Your task to perform on an android device: toggle airplane mode Image 0: 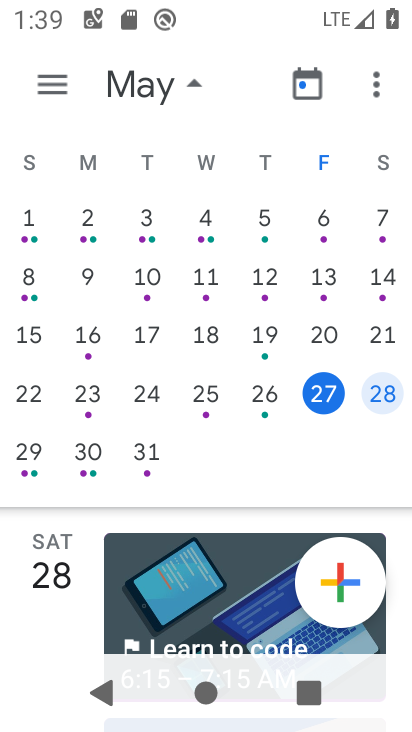
Step 0: press home button
Your task to perform on an android device: toggle airplane mode Image 1: 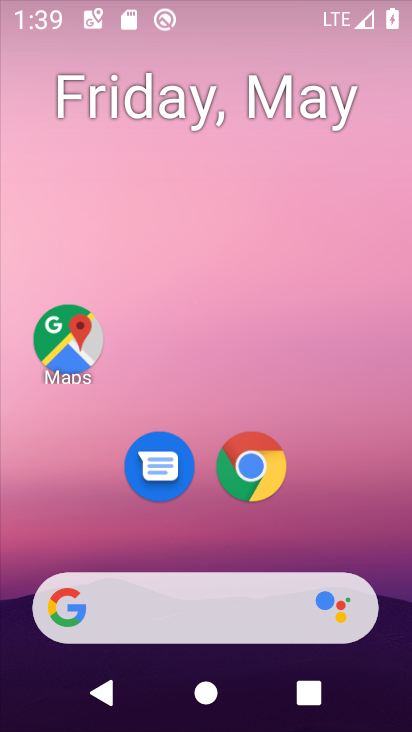
Step 1: drag from (361, 477) to (410, 0)
Your task to perform on an android device: toggle airplane mode Image 2: 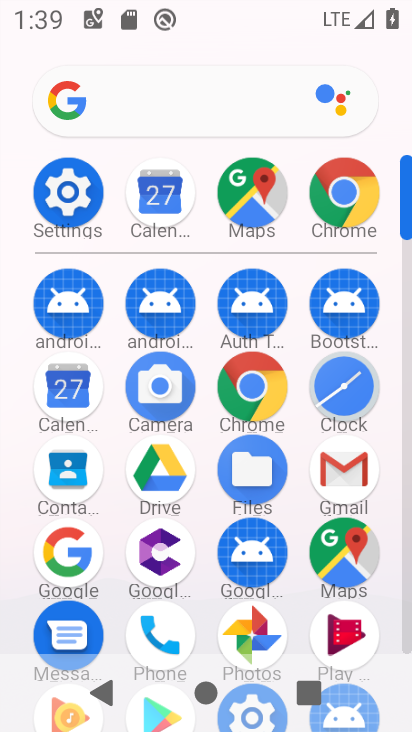
Step 2: click (65, 194)
Your task to perform on an android device: toggle airplane mode Image 3: 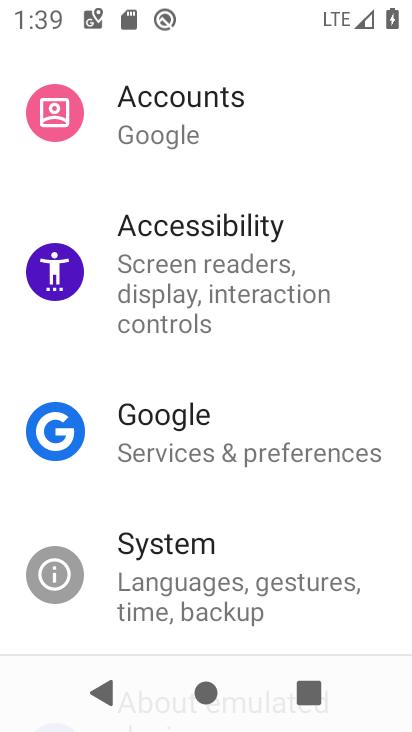
Step 3: drag from (197, 197) to (213, 693)
Your task to perform on an android device: toggle airplane mode Image 4: 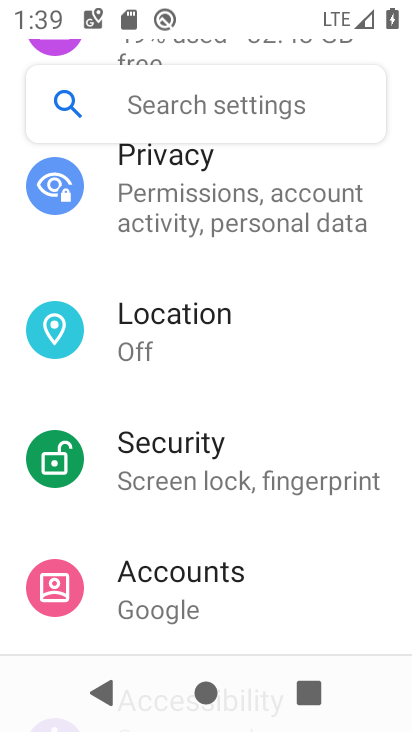
Step 4: drag from (250, 171) to (285, 627)
Your task to perform on an android device: toggle airplane mode Image 5: 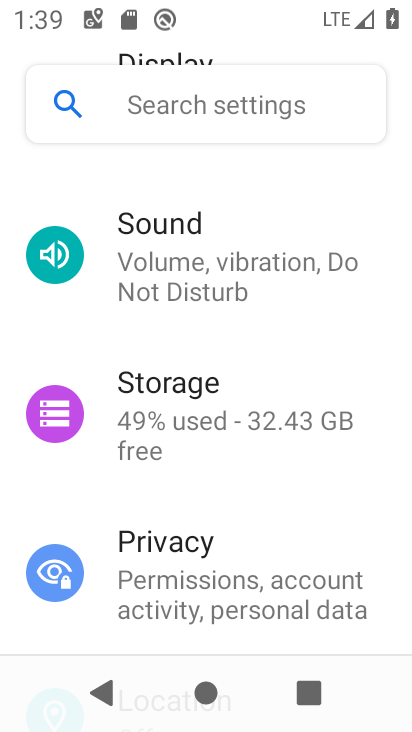
Step 5: drag from (294, 187) to (304, 706)
Your task to perform on an android device: toggle airplane mode Image 6: 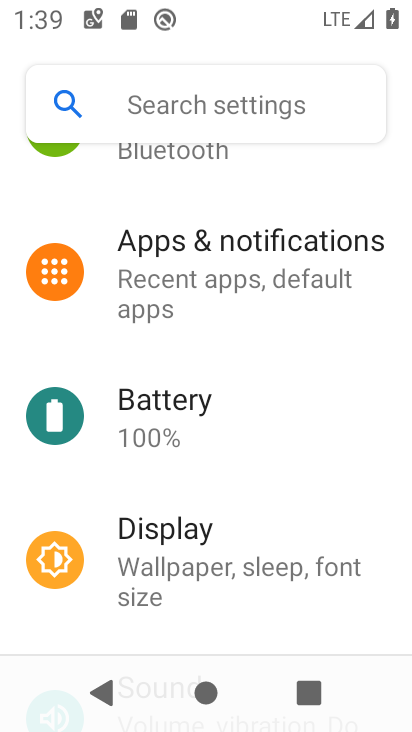
Step 6: drag from (279, 228) to (291, 647)
Your task to perform on an android device: toggle airplane mode Image 7: 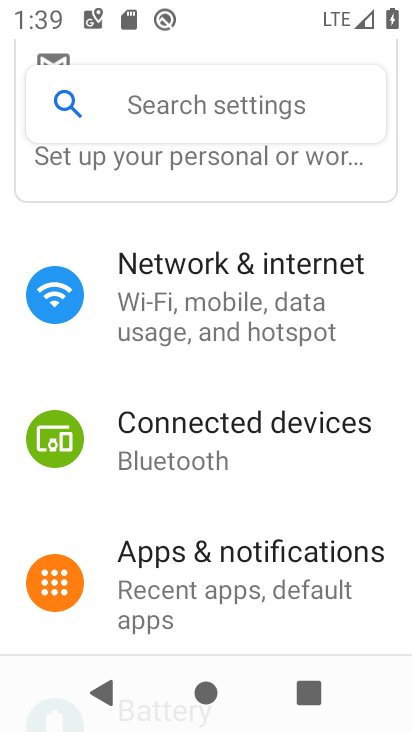
Step 7: drag from (247, 222) to (288, 565)
Your task to perform on an android device: toggle airplane mode Image 8: 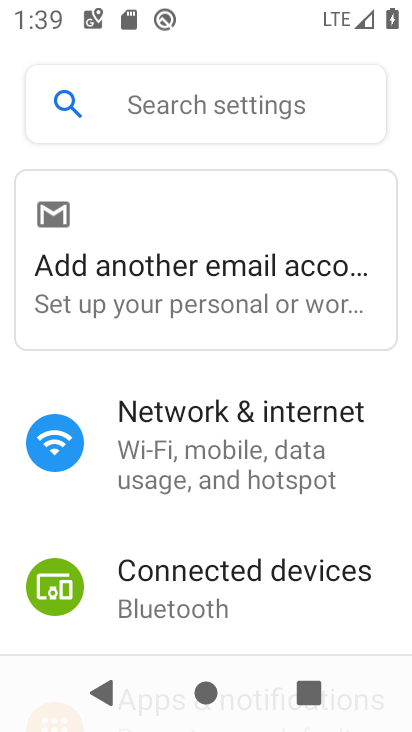
Step 8: click (247, 413)
Your task to perform on an android device: toggle airplane mode Image 9: 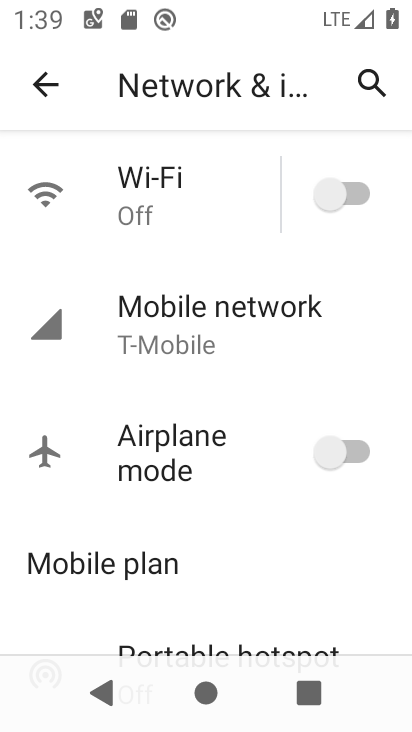
Step 9: click (340, 464)
Your task to perform on an android device: toggle airplane mode Image 10: 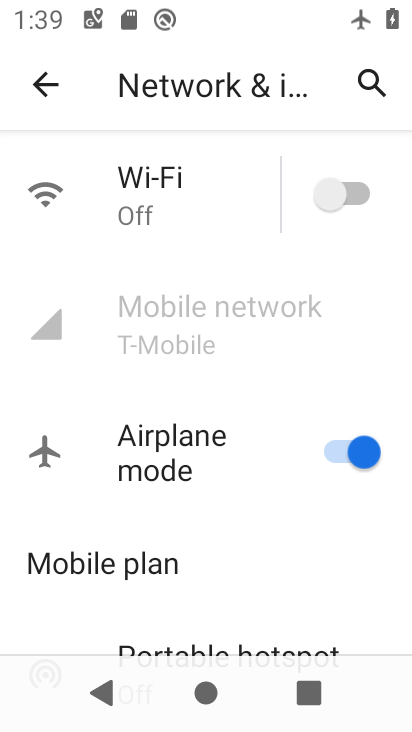
Step 10: task complete